Your task to perform on an android device: Open the stopwatch Image 0: 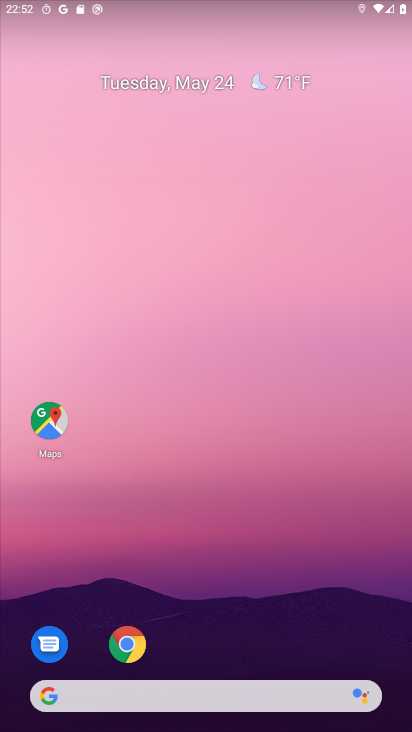
Step 0: drag from (263, 587) to (209, 25)
Your task to perform on an android device: Open the stopwatch Image 1: 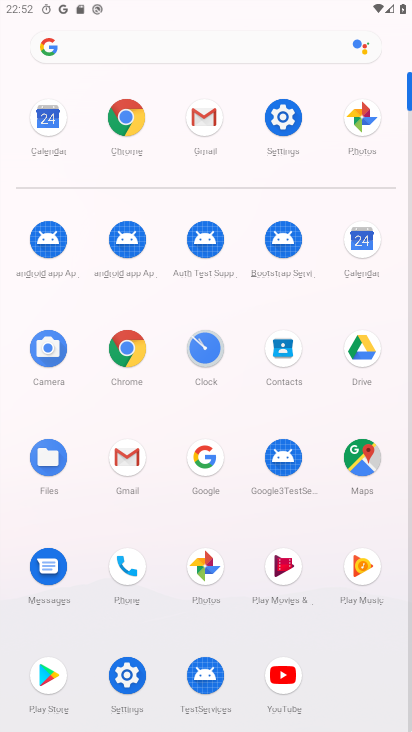
Step 1: click (211, 350)
Your task to perform on an android device: Open the stopwatch Image 2: 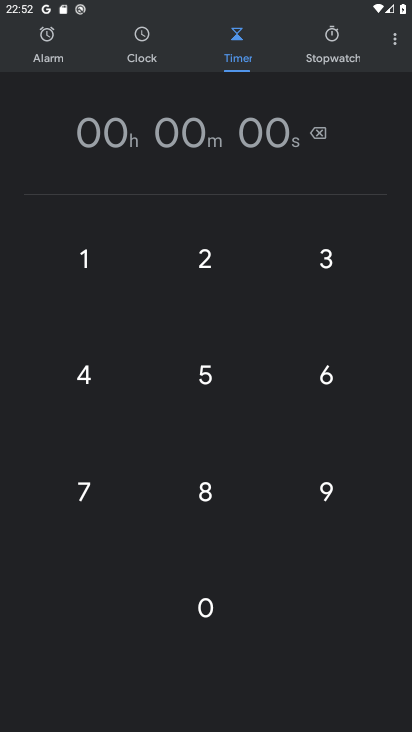
Step 2: click (326, 41)
Your task to perform on an android device: Open the stopwatch Image 3: 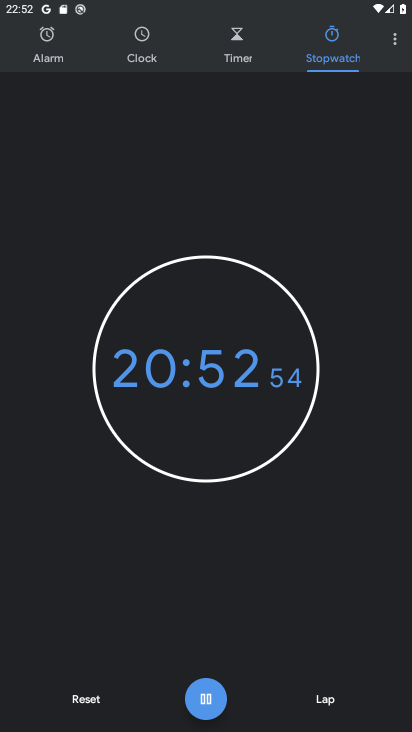
Step 3: click (88, 705)
Your task to perform on an android device: Open the stopwatch Image 4: 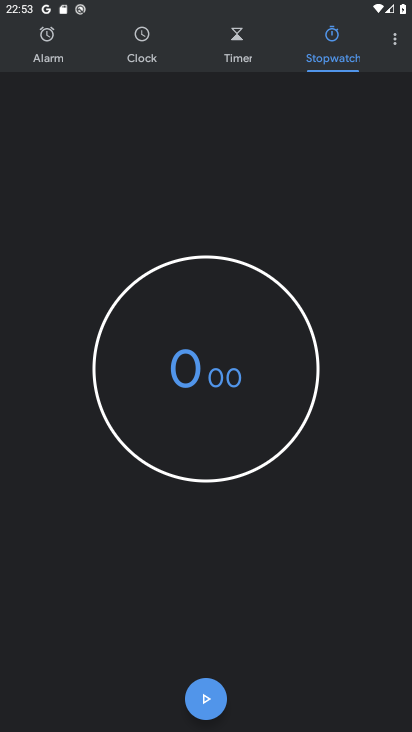
Step 4: task complete